Your task to perform on an android device: Search for vegetarian restaurants on Maps Image 0: 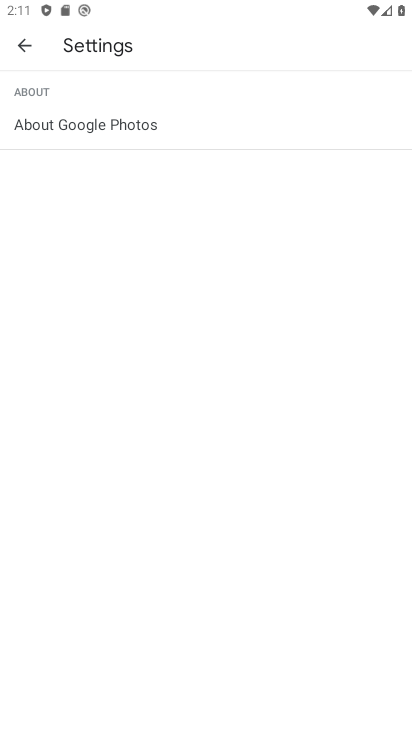
Step 0: press back button
Your task to perform on an android device: Search for vegetarian restaurants on Maps Image 1: 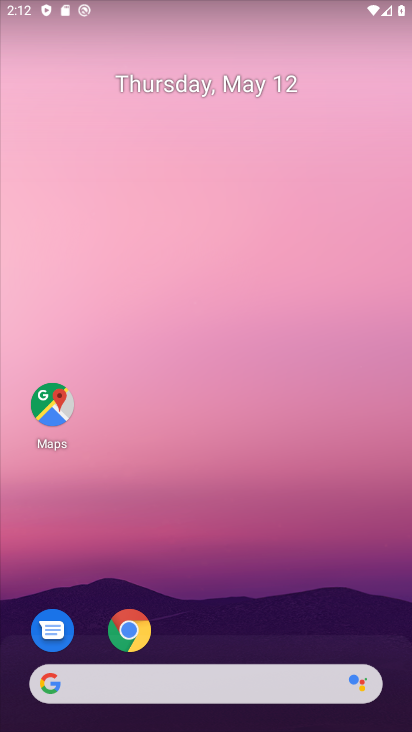
Step 1: click (51, 408)
Your task to perform on an android device: Search for vegetarian restaurants on Maps Image 2: 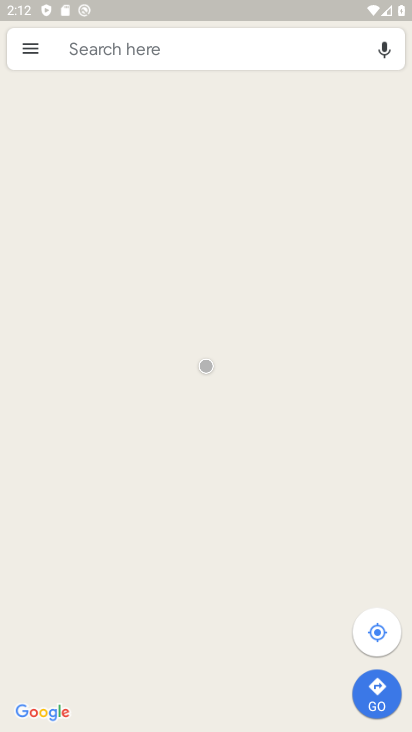
Step 2: click (244, 46)
Your task to perform on an android device: Search for vegetarian restaurants on Maps Image 3: 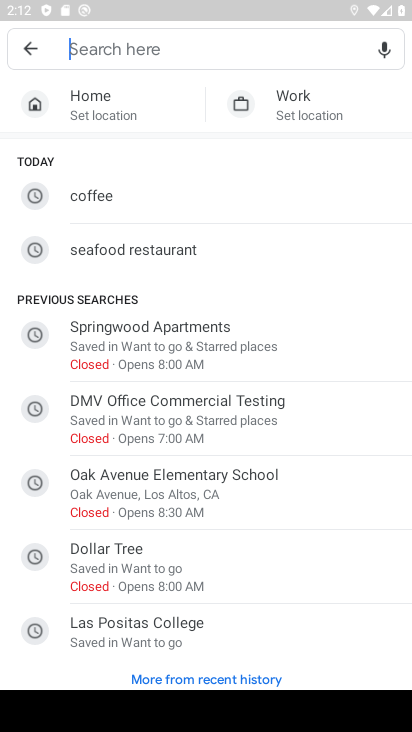
Step 3: type "vegetarian restaurants"
Your task to perform on an android device: Search for vegetarian restaurants on Maps Image 4: 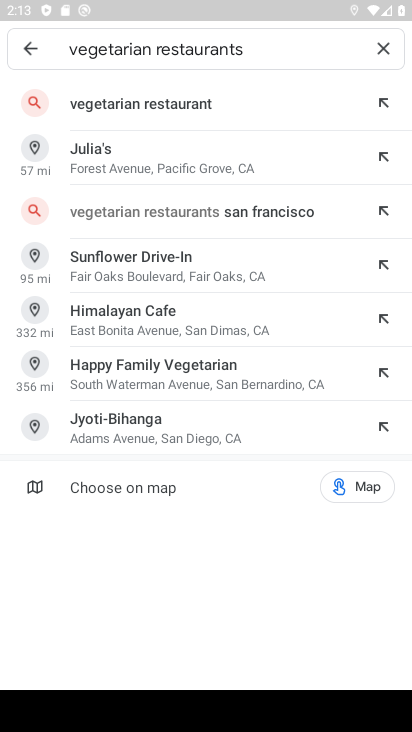
Step 4: click (189, 103)
Your task to perform on an android device: Search for vegetarian restaurants on Maps Image 5: 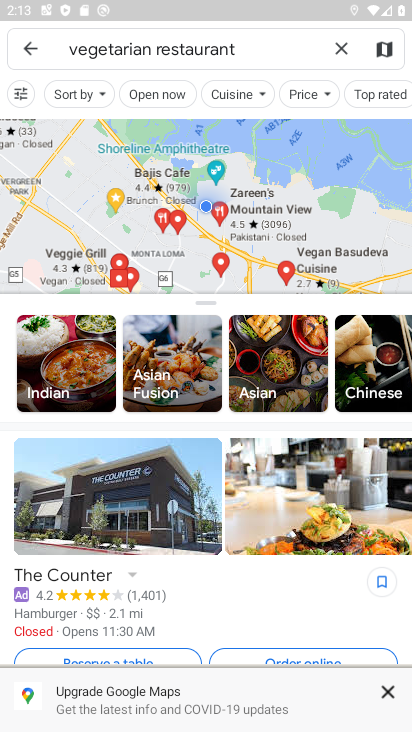
Step 5: task complete